Your task to perform on an android device: Search for Mexican restaurants on Maps Image 0: 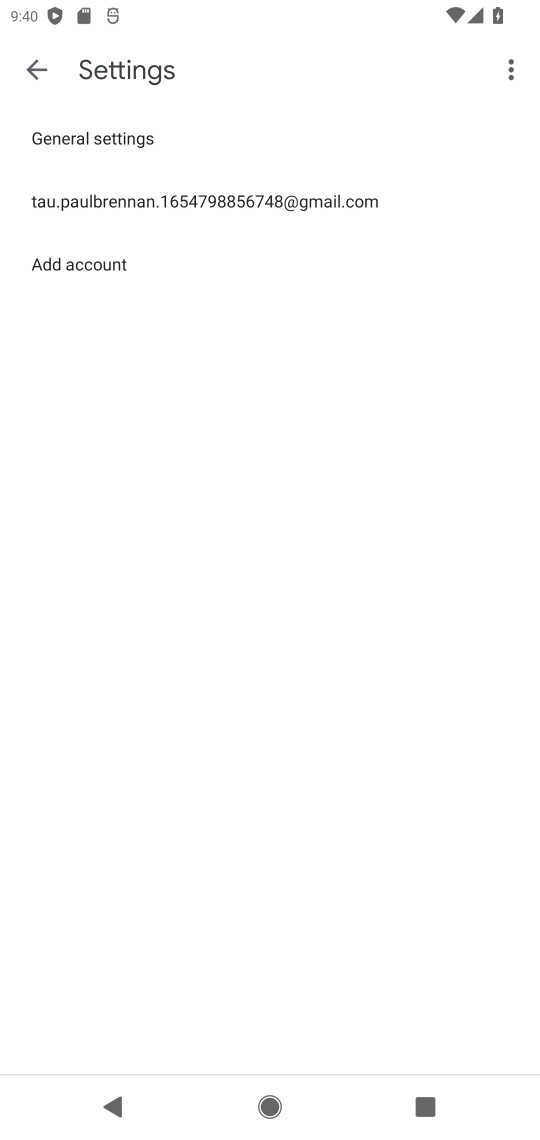
Step 0: press home button
Your task to perform on an android device: Search for Mexican restaurants on Maps Image 1: 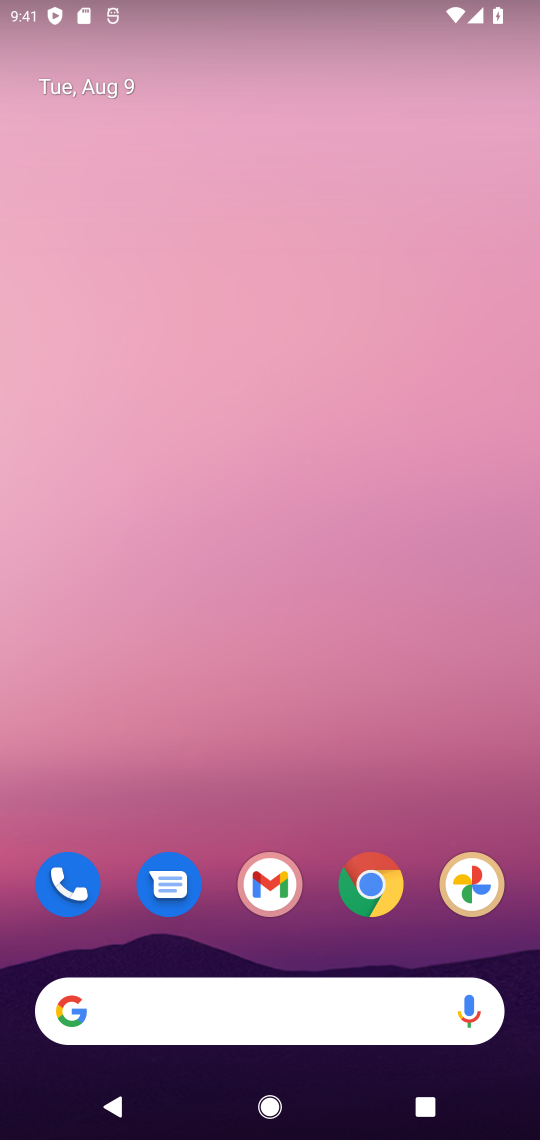
Step 1: drag from (258, 1002) to (308, 203)
Your task to perform on an android device: Search for Mexican restaurants on Maps Image 2: 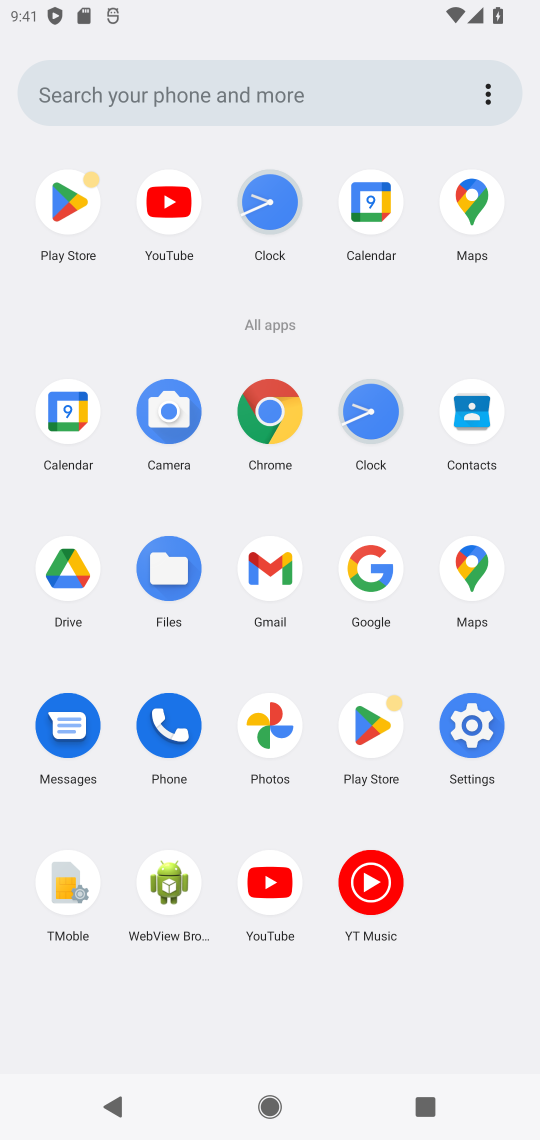
Step 2: click (472, 196)
Your task to perform on an android device: Search for Mexican restaurants on Maps Image 3: 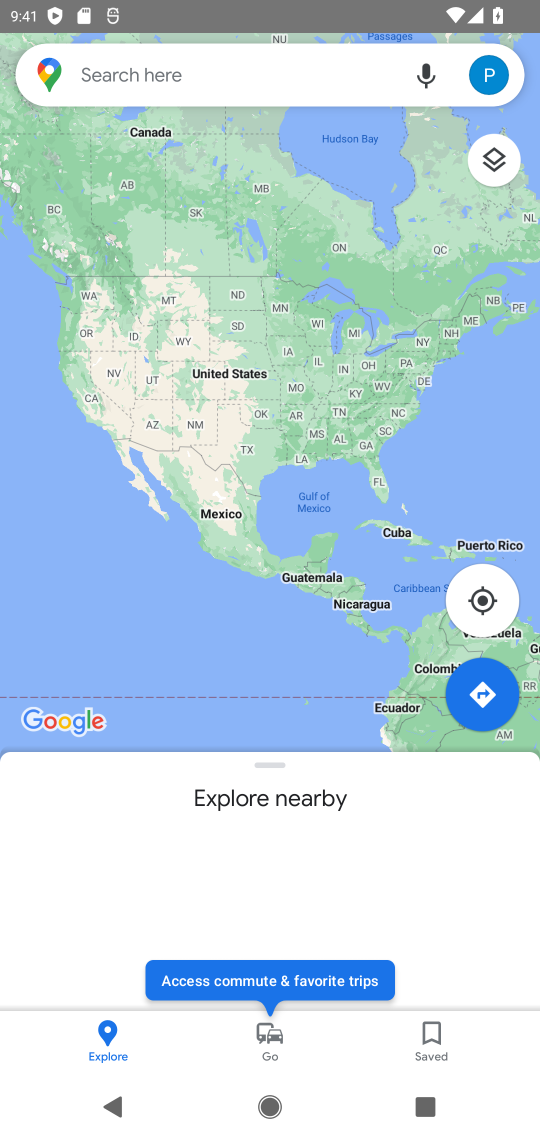
Step 3: click (263, 81)
Your task to perform on an android device: Search for Mexican restaurants on Maps Image 4: 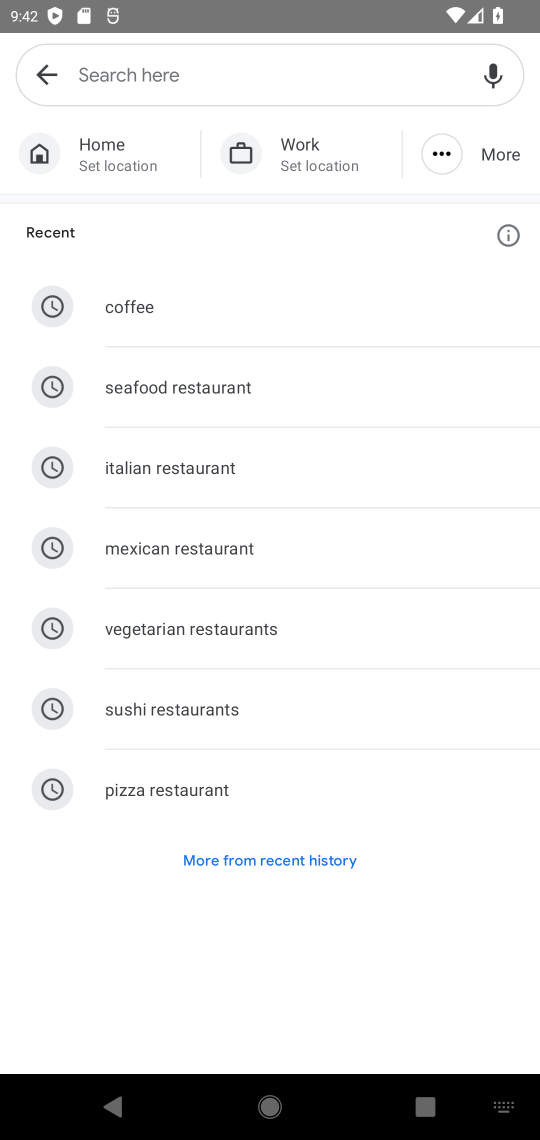
Step 4: type "Mexican restaurants"
Your task to perform on an android device: Search for Mexican restaurants on Maps Image 5: 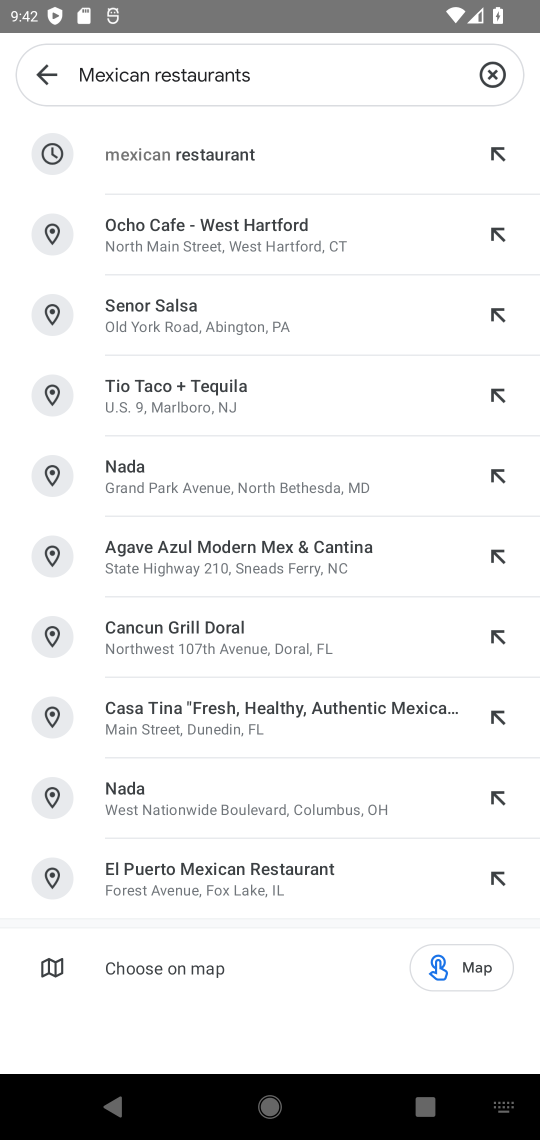
Step 5: click (232, 157)
Your task to perform on an android device: Search for Mexican restaurants on Maps Image 6: 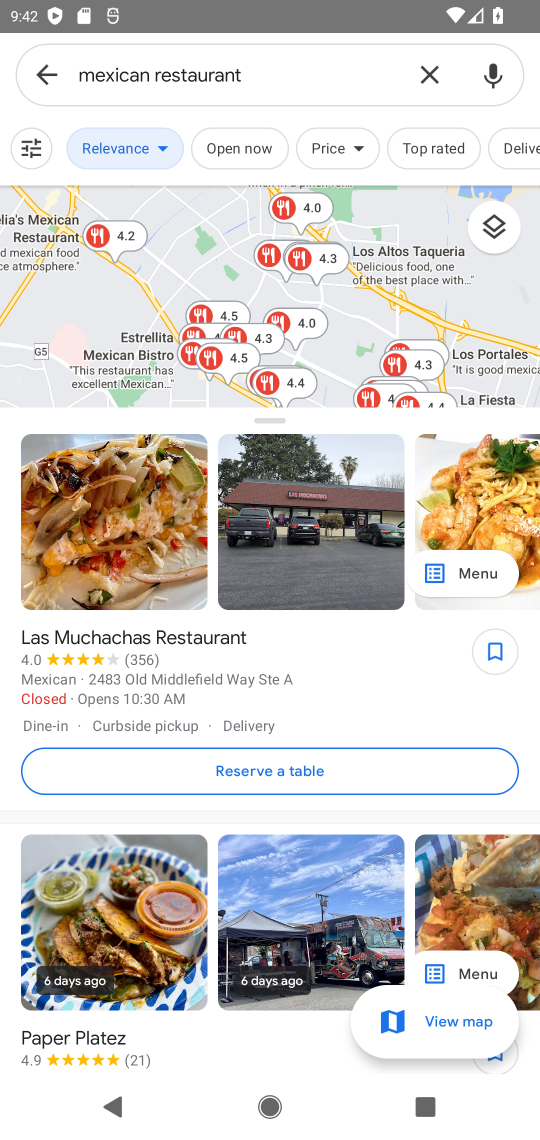
Step 6: task complete